Your task to perform on an android device: Open Google Image 0: 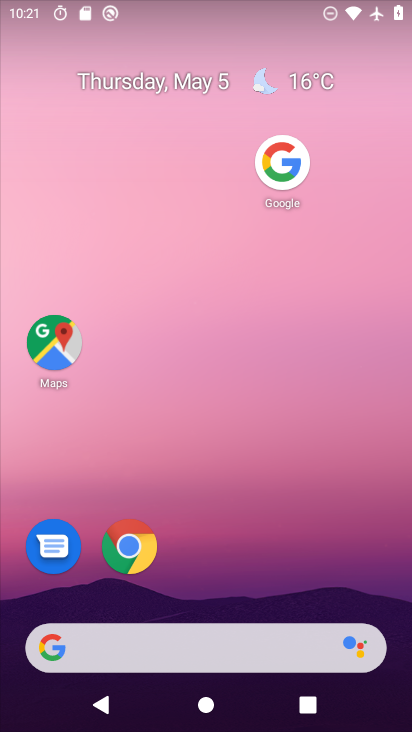
Step 0: drag from (179, 632) to (231, 124)
Your task to perform on an android device: Open Google Image 1: 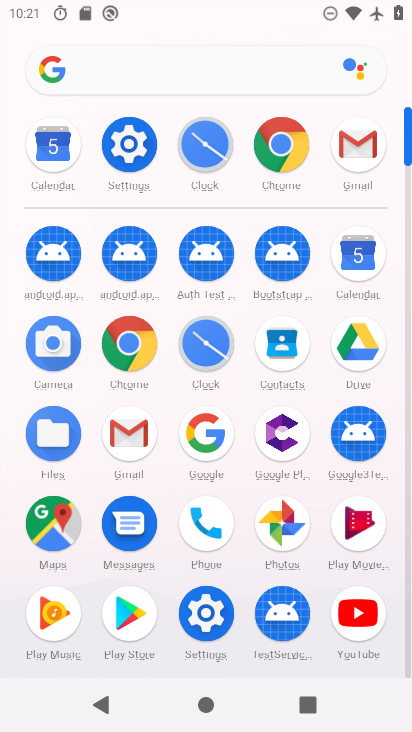
Step 1: click (208, 448)
Your task to perform on an android device: Open Google Image 2: 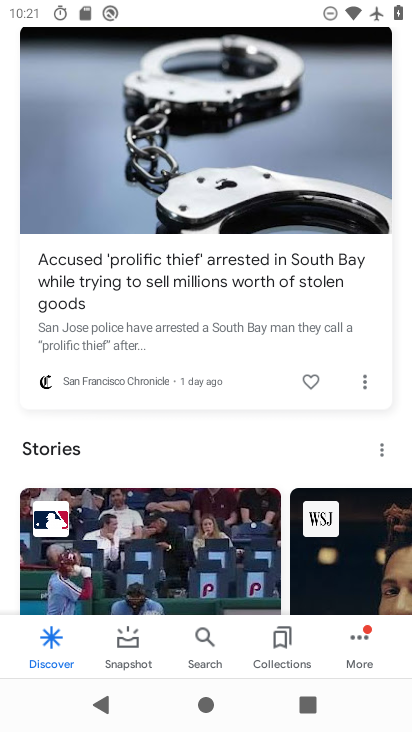
Step 2: task complete